Your task to perform on an android device: choose inbox layout in the gmail app Image 0: 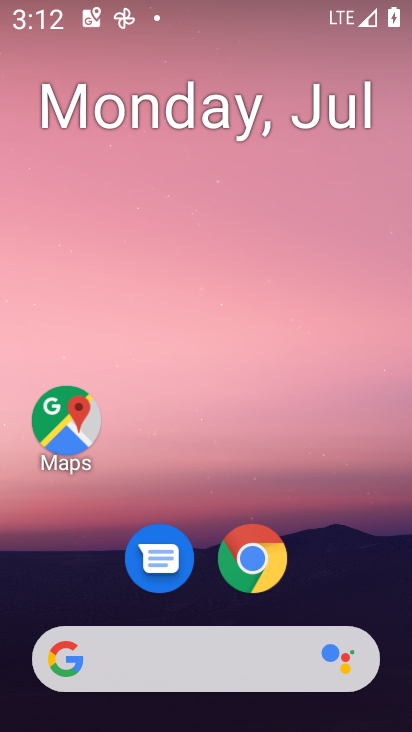
Step 0: drag from (350, 533) to (351, 41)
Your task to perform on an android device: choose inbox layout in the gmail app Image 1: 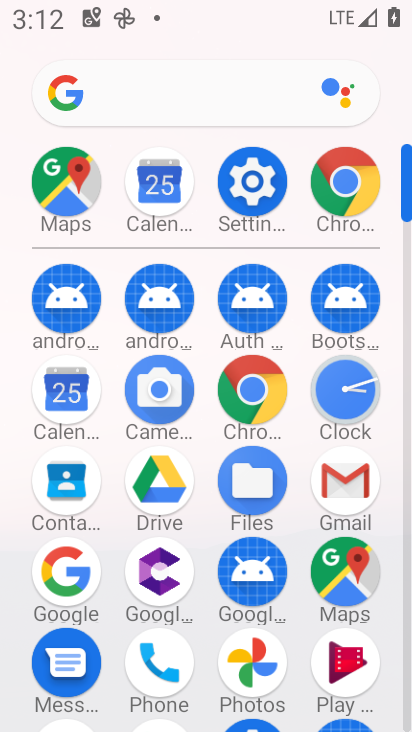
Step 1: click (350, 488)
Your task to perform on an android device: choose inbox layout in the gmail app Image 2: 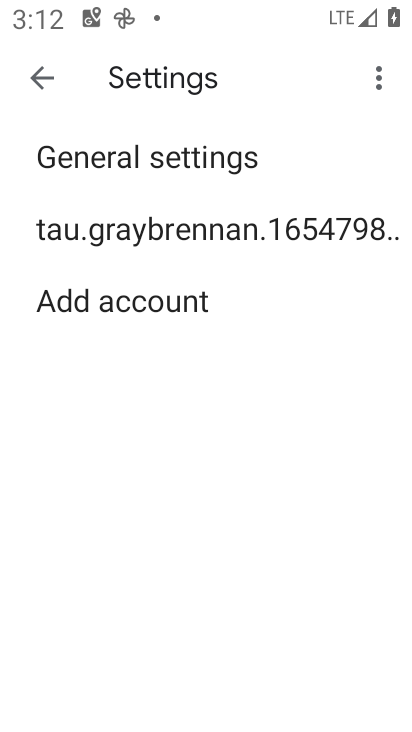
Step 2: click (235, 240)
Your task to perform on an android device: choose inbox layout in the gmail app Image 3: 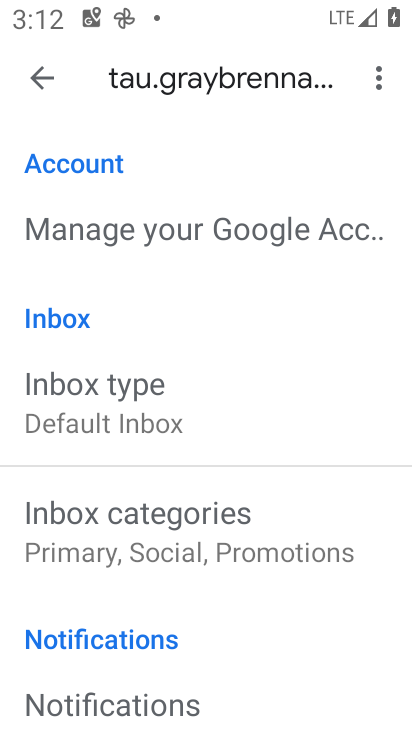
Step 3: drag from (322, 587) to (303, 380)
Your task to perform on an android device: choose inbox layout in the gmail app Image 4: 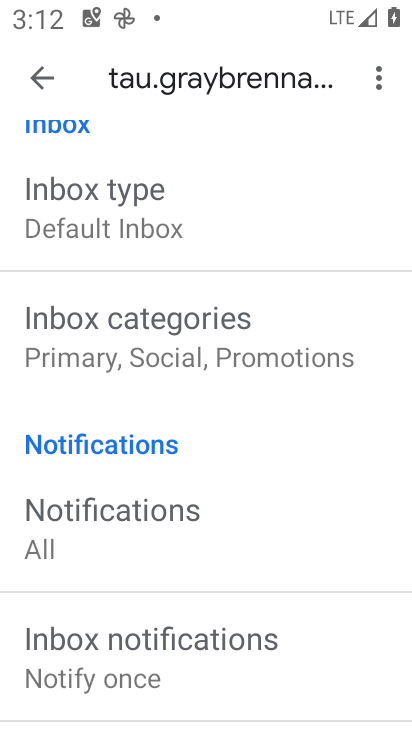
Step 4: click (121, 200)
Your task to perform on an android device: choose inbox layout in the gmail app Image 5: 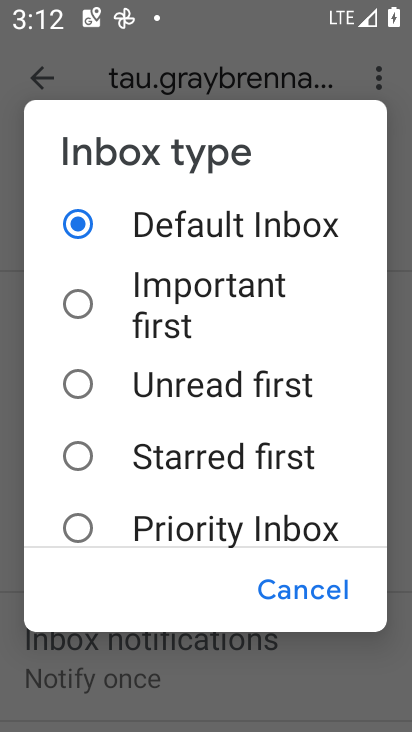
Step 5: click (148, 315)
Your task to perform on an android device: choose inbox layout in the gmail app Image 6: 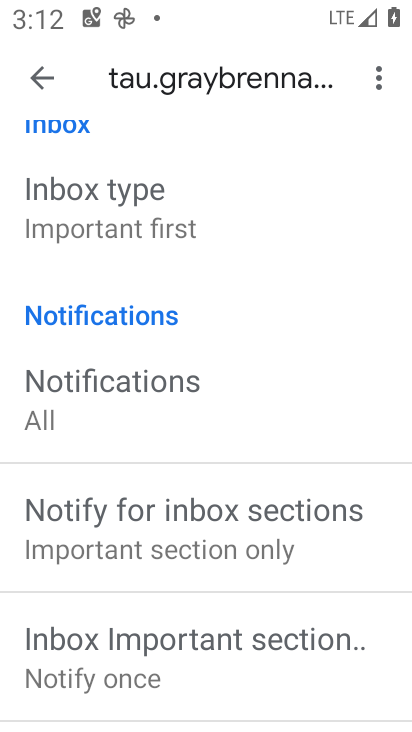
Step 6: task complete